Your task to perform on an android device: turn on javascript in the chrome app Image 0: 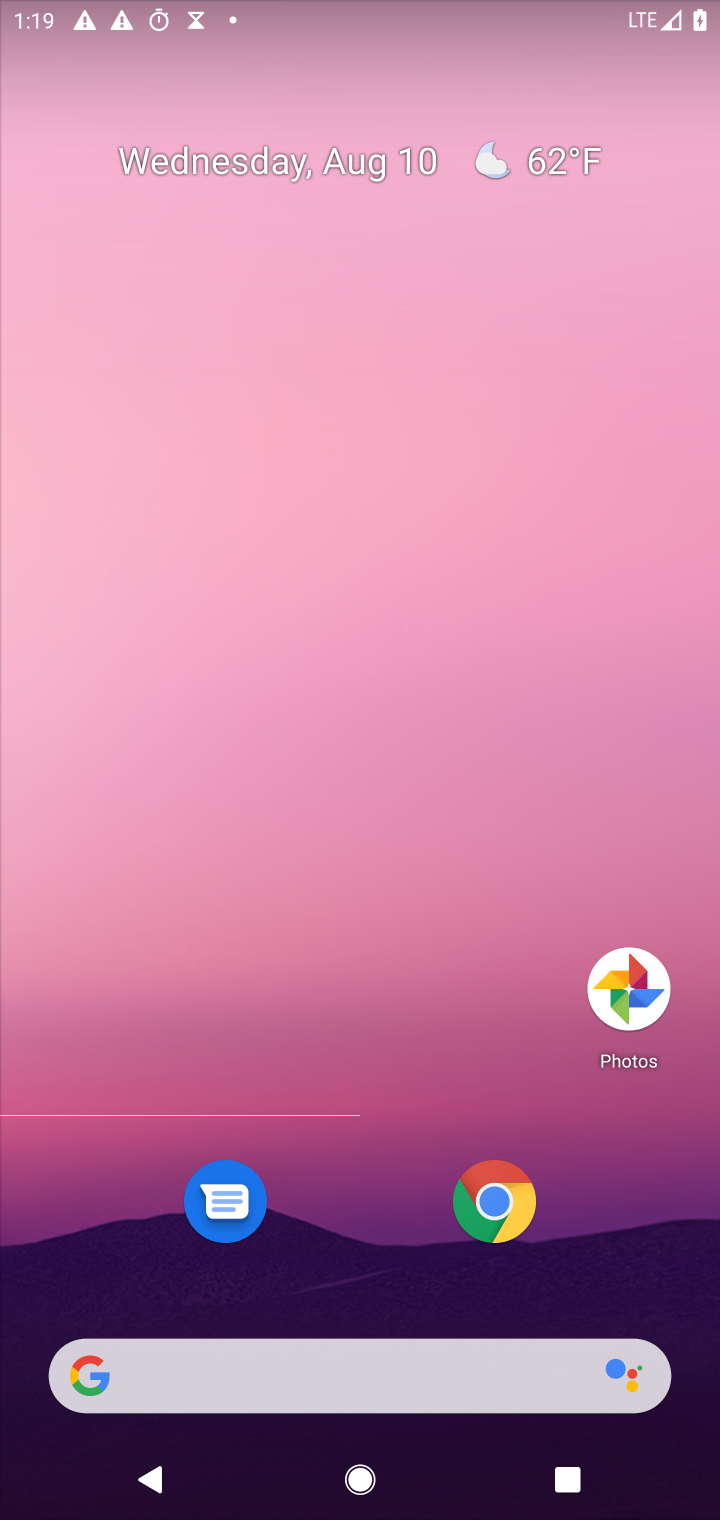
Step 0: press home button
Your task to perform on an android device: turn on javascript in the chrome app Image 1: 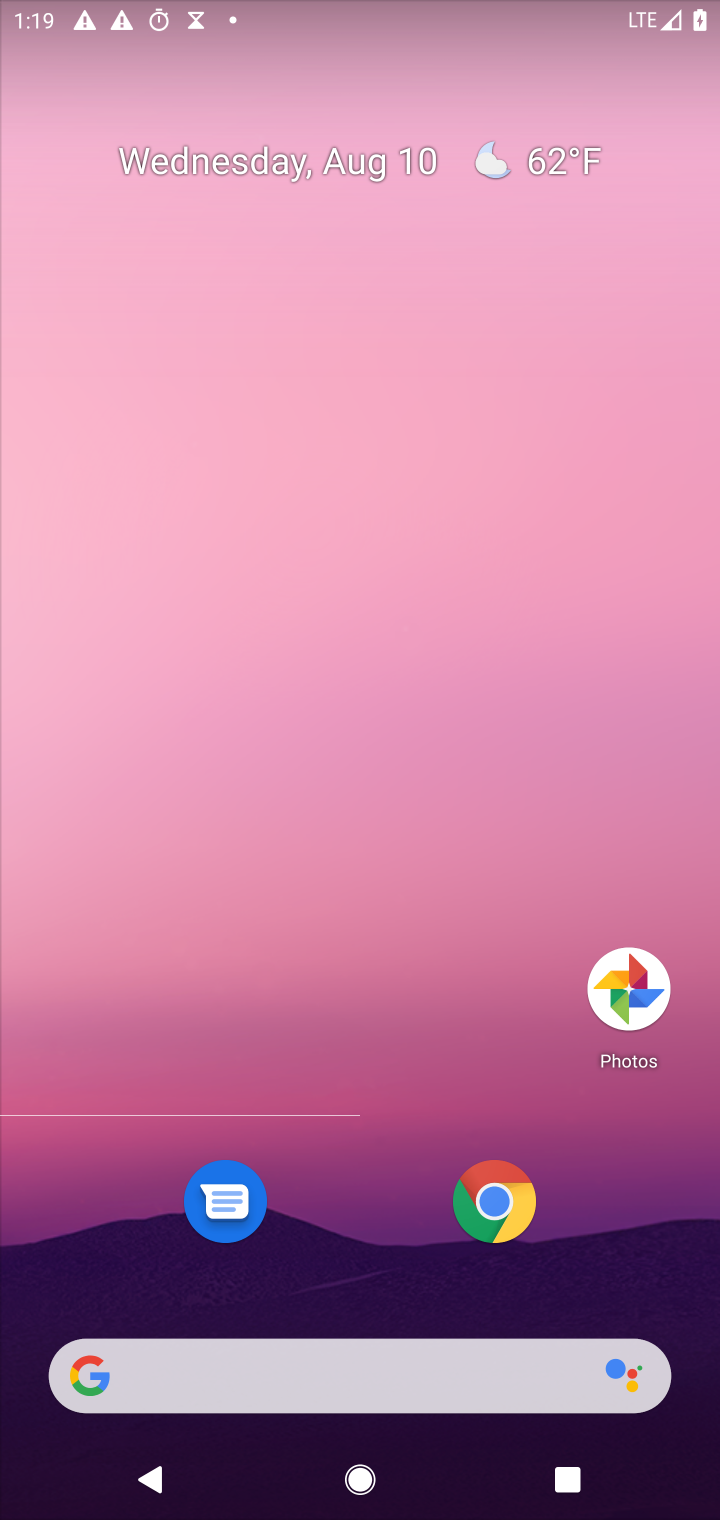
Step 1: click (494, 1191)
Your task to perform on an android device: turn on javascript in the chrome app Image 2: 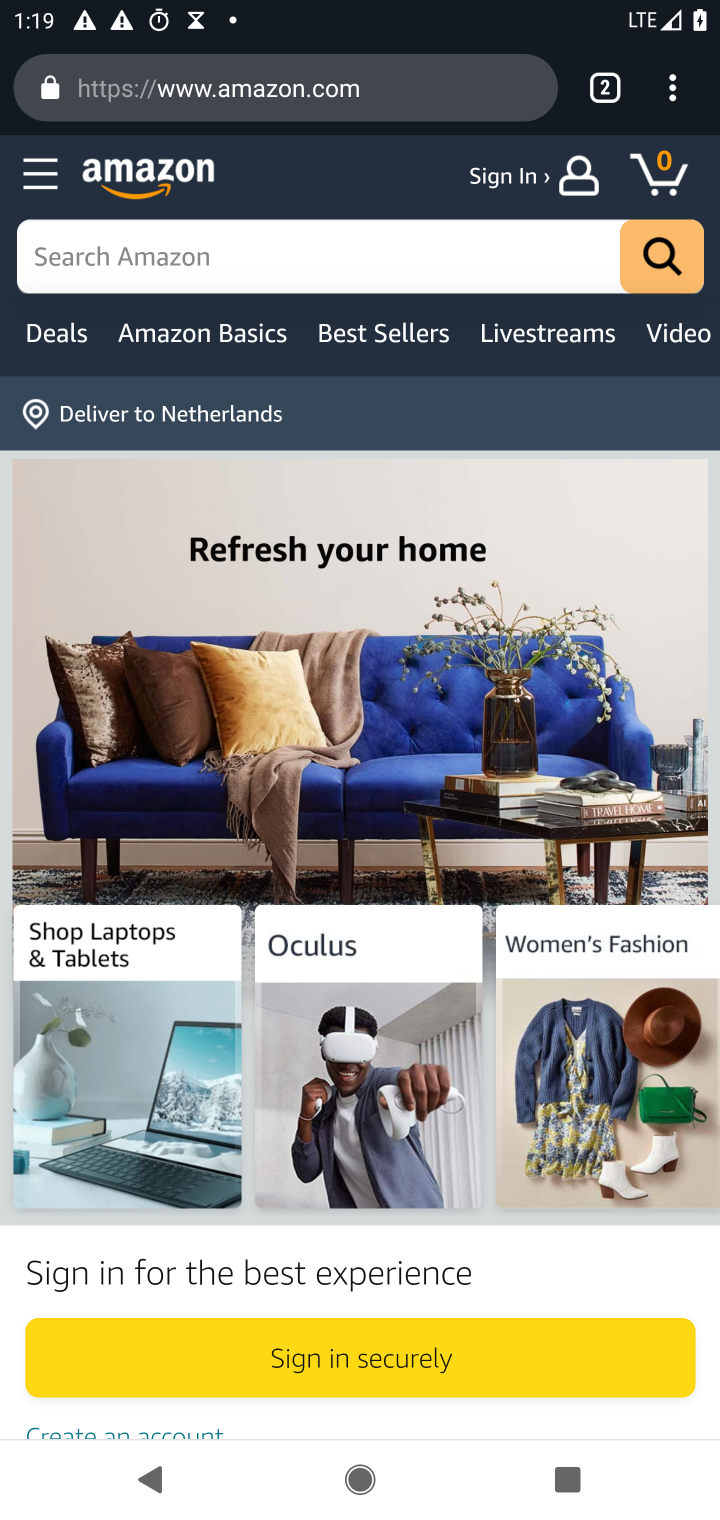
Step 2: drag from (671, 90) to (360, 1051)
Your task to perform on an android device: turn on javascript in the chrome app Image 3: 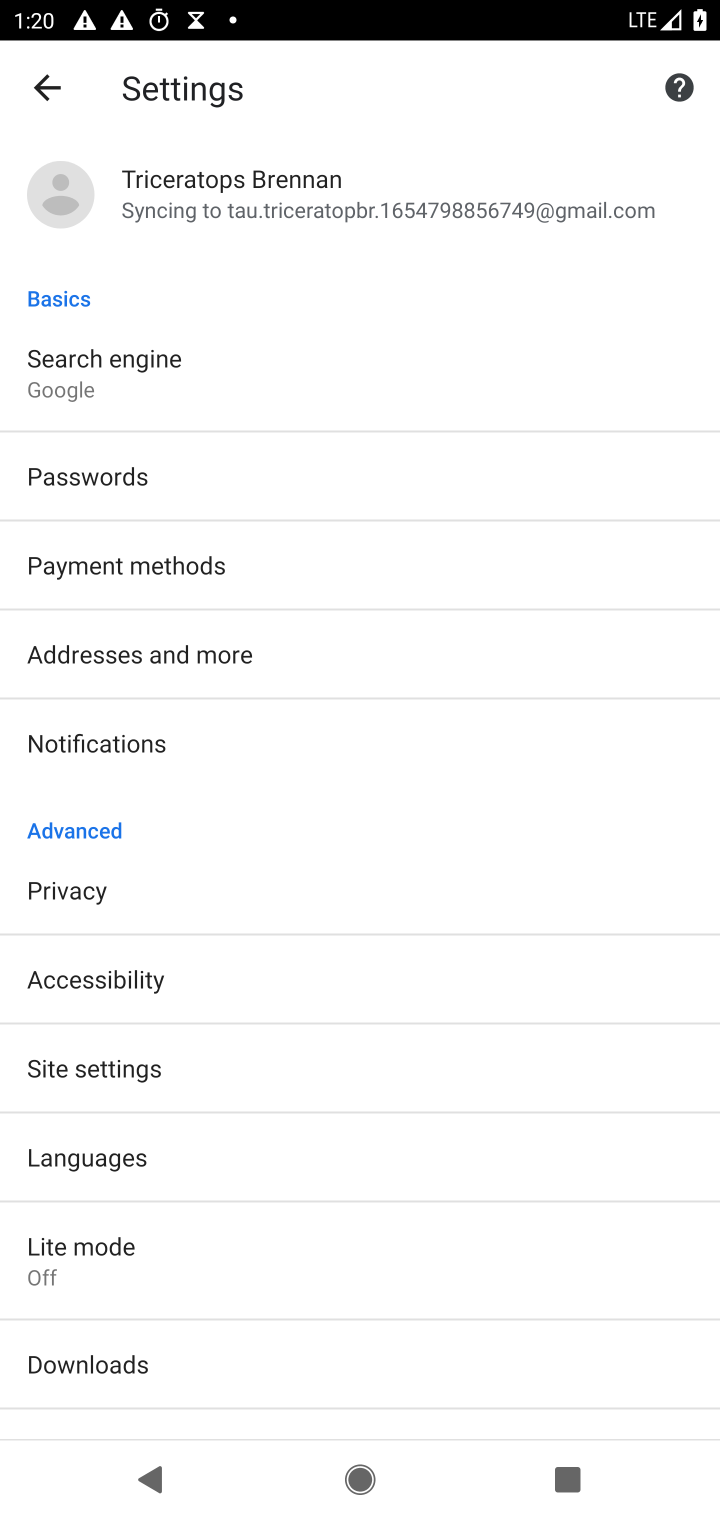
Step 3: click (62, 1063)
Your task to perform on an android device: turn on javascript in the chrome app Image 4: 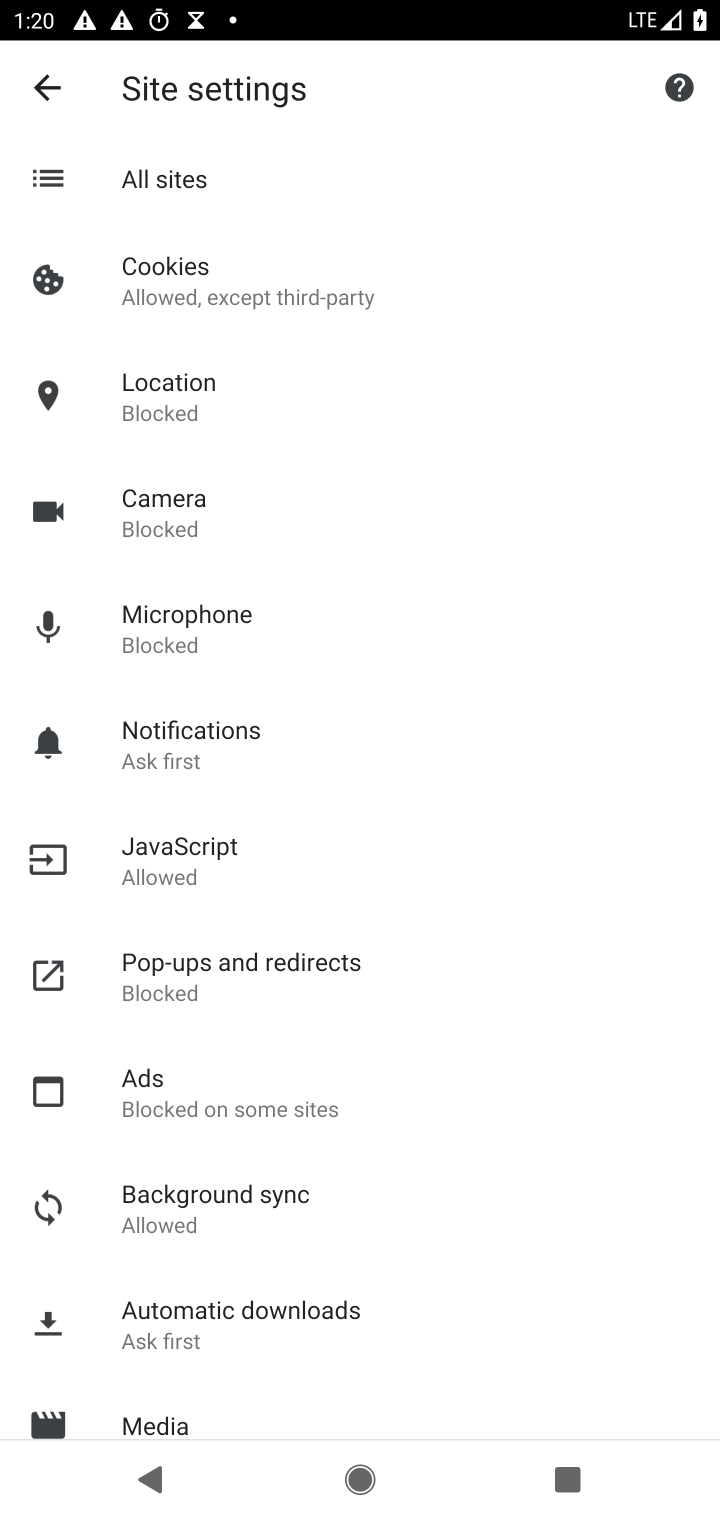
Step 4: click (188, 843)
Your task to perform on an android device: turn on javascript in the chrome app Image 5: 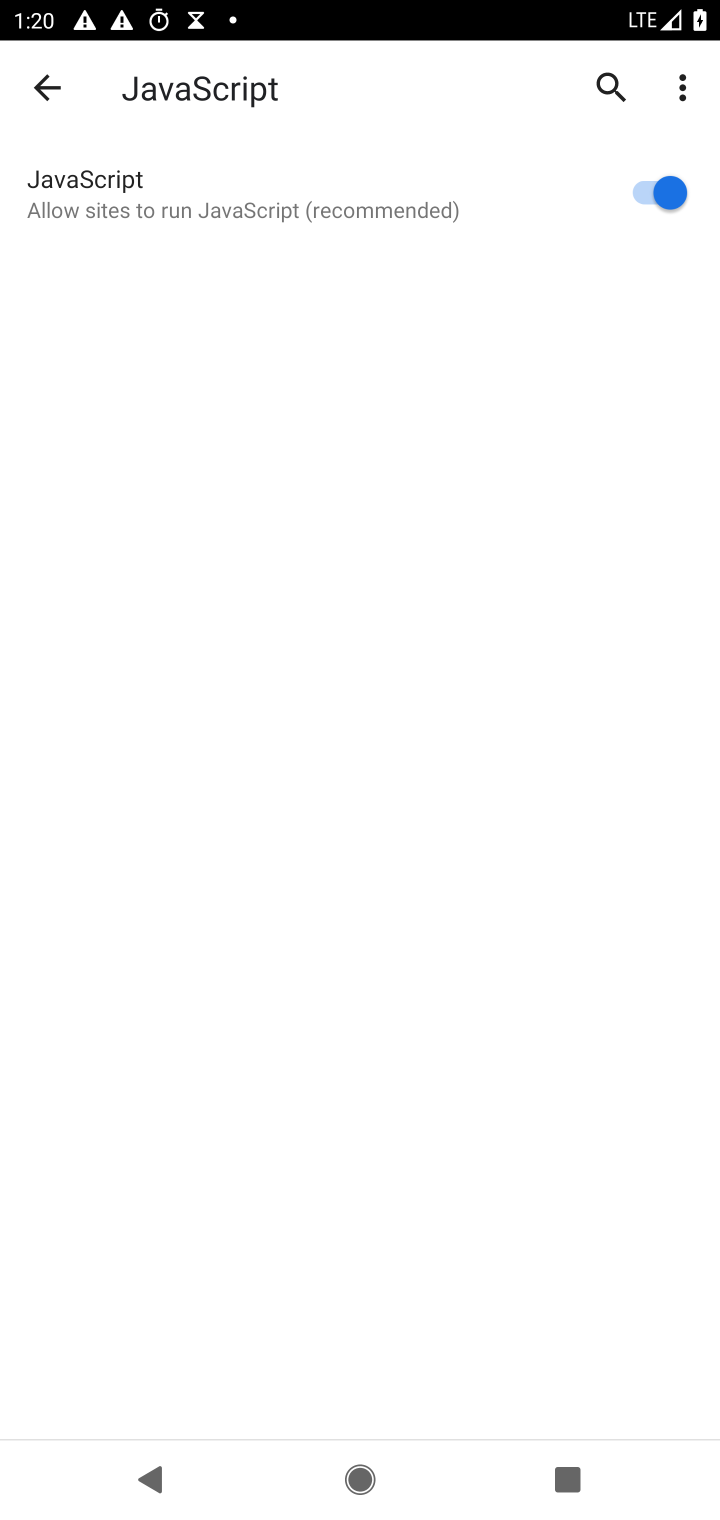
Step 5: task complete